Your task to perform on an android device: turn off translation in the chrome app Image 0: 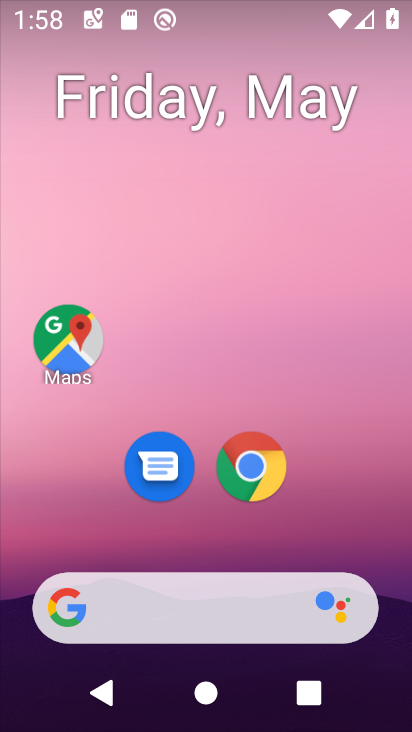
Step 0: drag from (373, 543) to (397, 400)
Your task to perform on an android device: turn off translation in the chrome app Image 1: 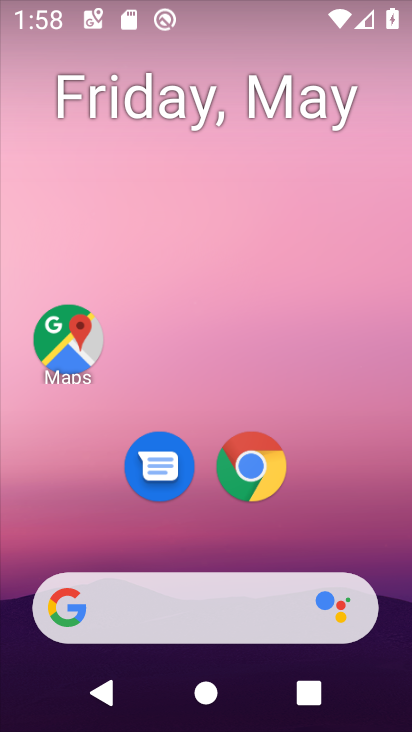
Step 1: click (258, 481)
Your task to perform on an android device: turn off translation in the chrome app Image 2: 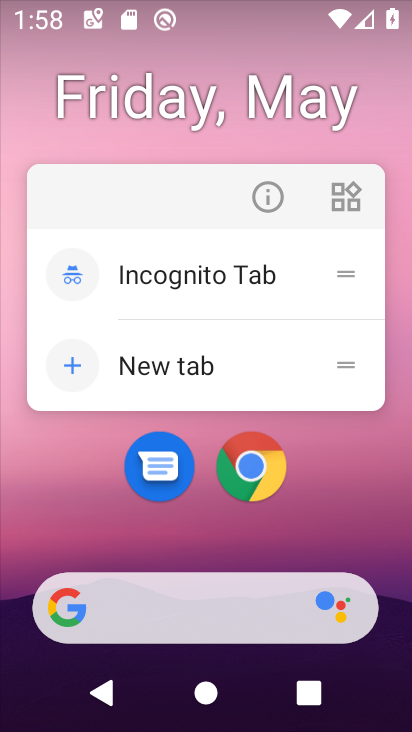
Step 2: click (258, 480)
Your task to perform on an android device: turn off translation in the chrome app Image 3: 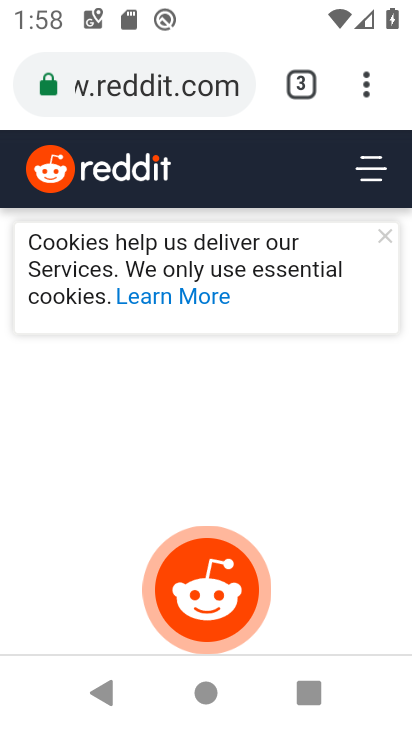
Step 3: drag from (373, 93) to (126, 530)
Your task to perform on an android device: turn off translation in the chrome app Image 4: 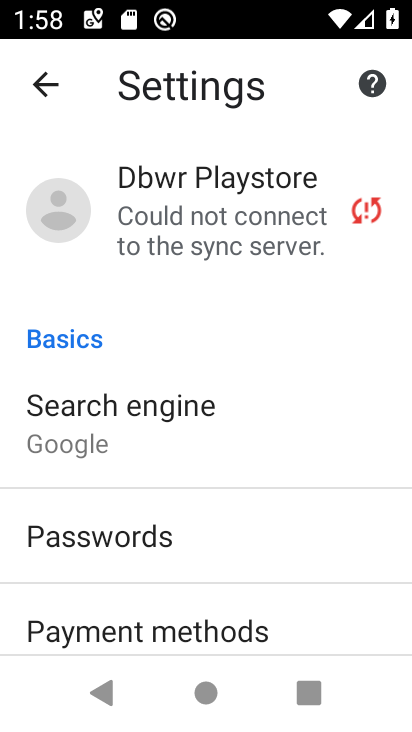
Step 4: drag from (153, 597) to (202, 262)
Your task to perform on an android device: turn off translation in the chrome app Image 5: 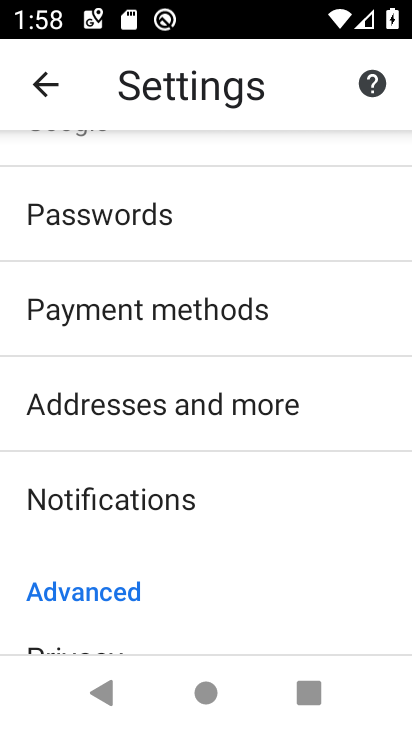
Step 5: drag from (184, 538) to (220, 236)
Your task to perform on an android device: turn off translation in the chrome app Image 6: 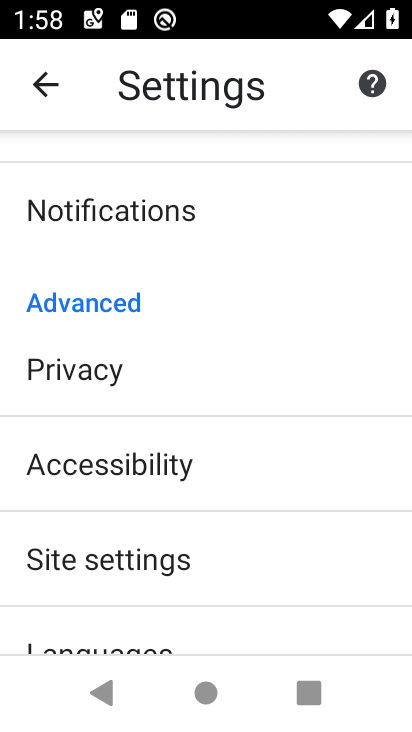
Step 6: drag from (152, 568) to (211, 250)
Your task to perform on an android device: turn off translation in the chrome app Image 7: 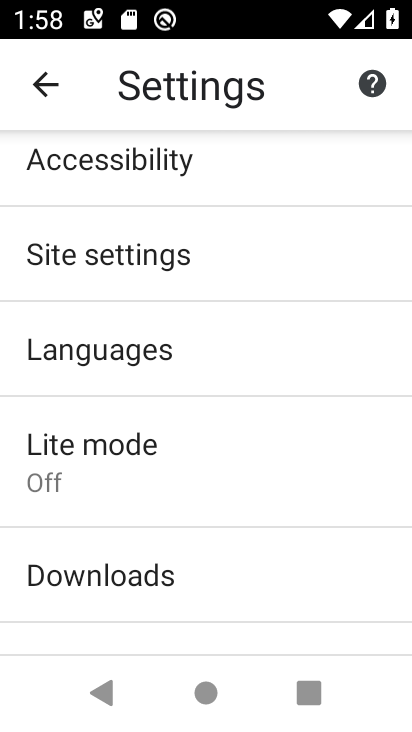
Step 7: drag from (214, 255) to (174, 571)
Your task to perform on an android device: turn off translation in the chrome app Image 8: 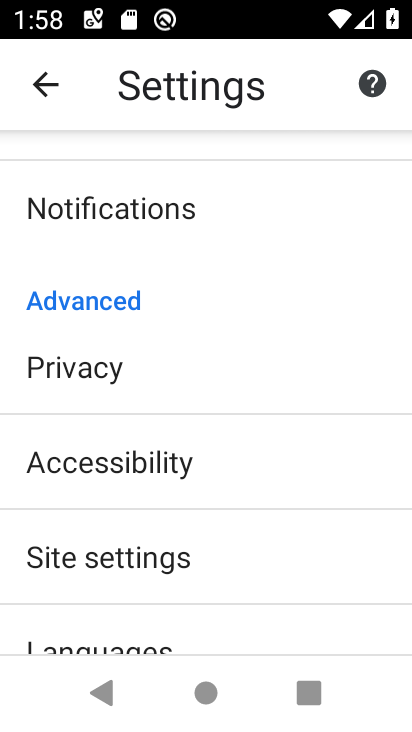
Step 8: drag from (176, 573) to (229, 239)
Your task to perform on an android device: turn off translation in the chrome app Image 9: 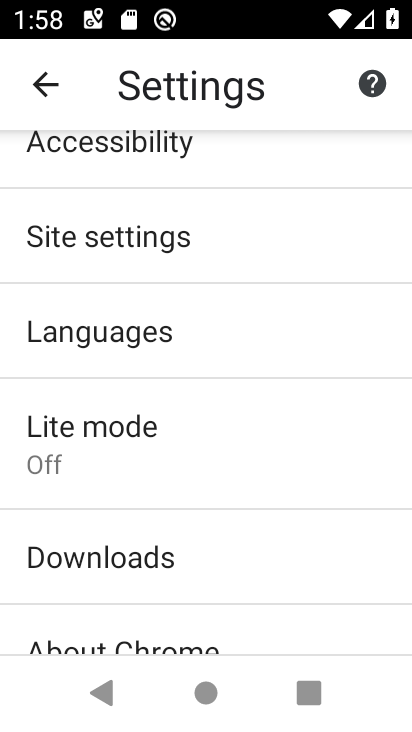
Step 9: click (133, 340)
Your task to perform on an android device: turn off translation in the chrome app Image 10: 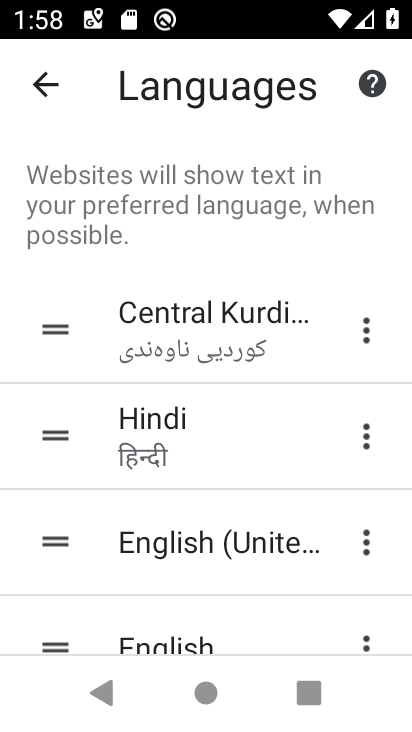
Step 10: task complete